Your task to perform on an android device: Open Youtube and go to "Your channel" Image 0: 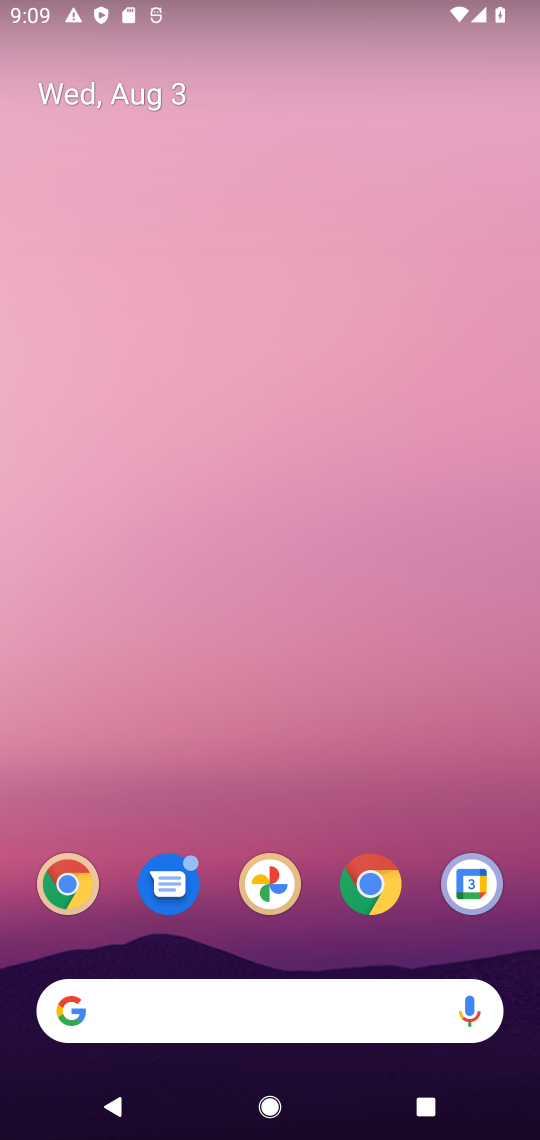
Step 0: drag from (372, 921) to (412, 14)
Your task to perform on an android device: Open Youtube and go to "Your channel" Image 1: 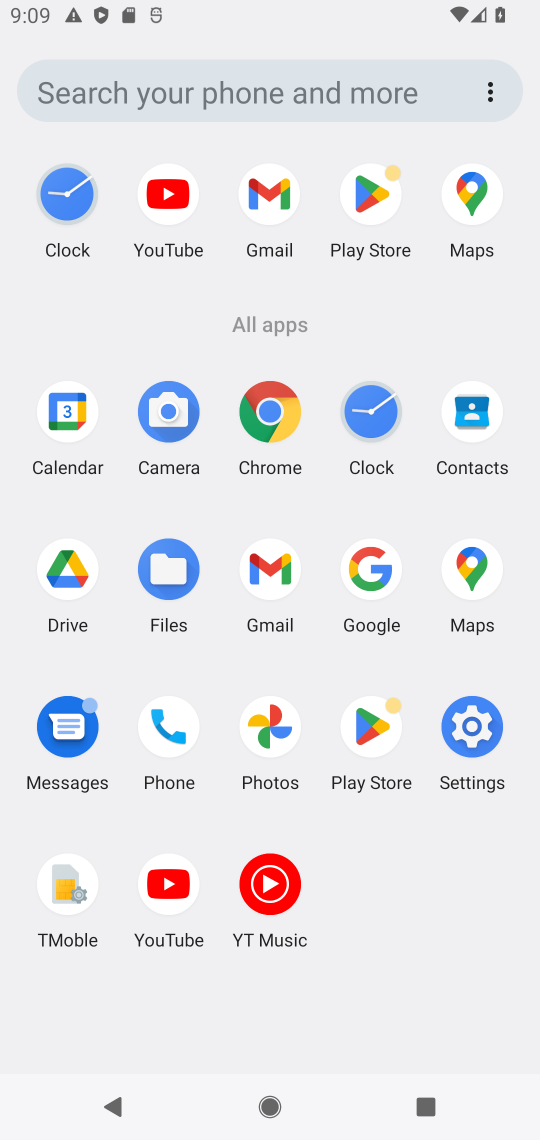
Step 1: click (148, 881)
Your task to perform on an android device: Open Youtube and go to "Your channel" Image 2: 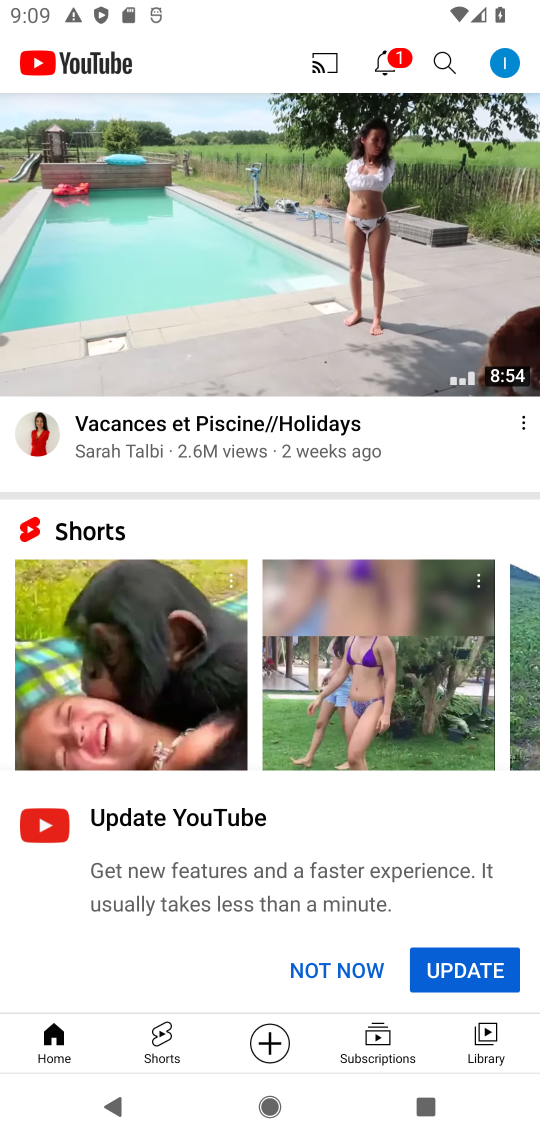
Step 2: click (495, 59)
Your task to perform on an android device: Open Youtube and go to "Your channel" Image 3: 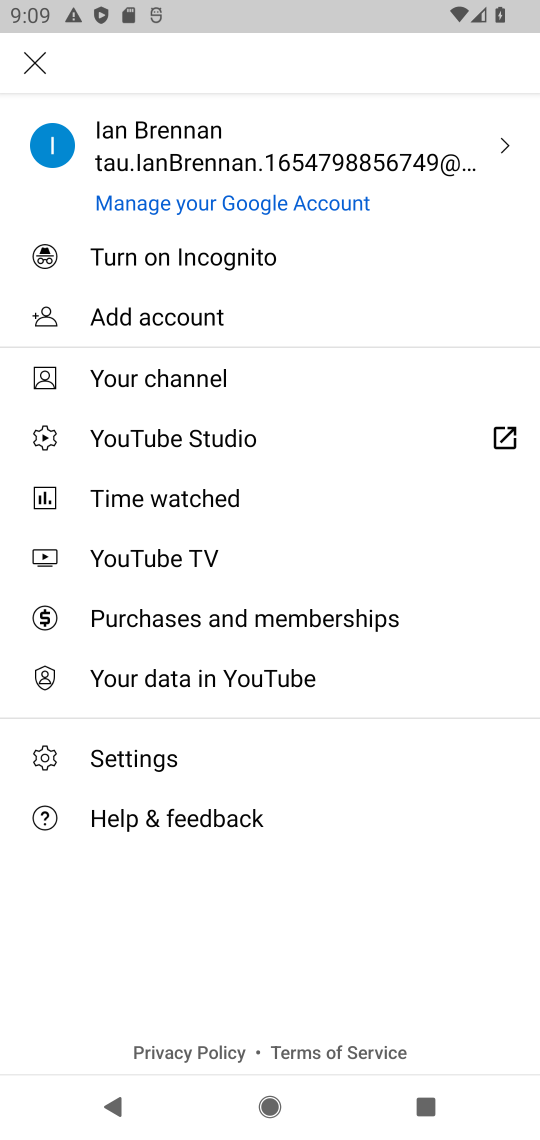
Step 3: click (131, 375)
Your task to perform on an android device: Open Youtube and go to "Your channel" Image 4: 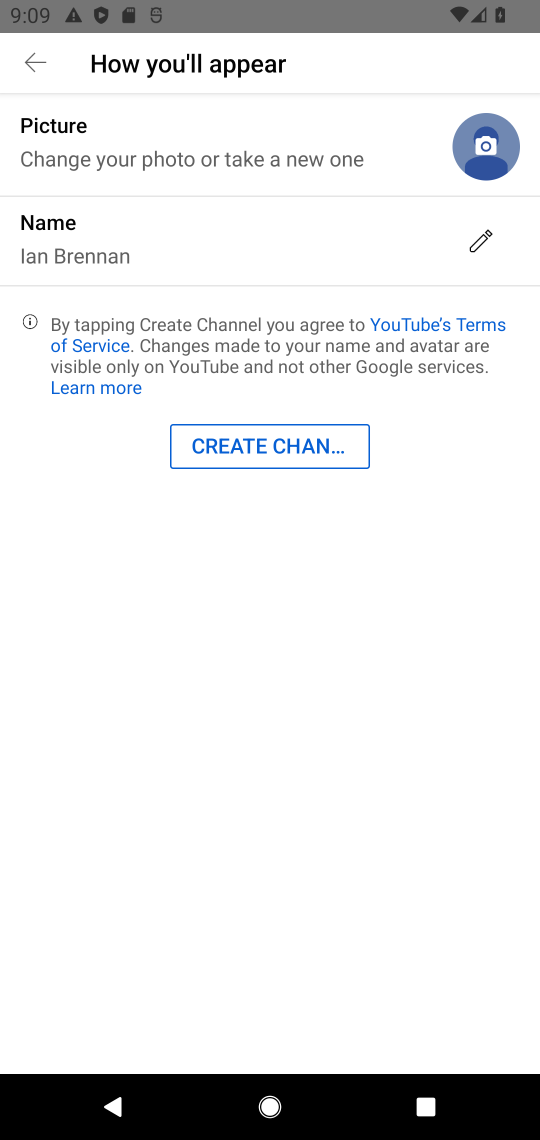
Step 4: task complete